Your task to perform on an android device: Clear the shopping cart on bestbuy.com. Search for macbook pro on bestbuy.com, select the first entry, add it to the cart, then select checkout. Image 0: 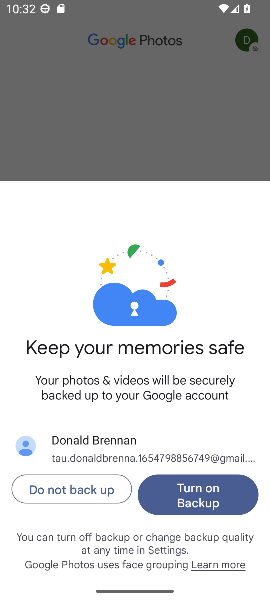
Step 0: press home button
Your task to perform on an android device: Clear the shopping cart on bestbuy.com. Search for macbook pro on bestbuy.com, select the first entry, add it to the cart, then select checkout. Image 1: 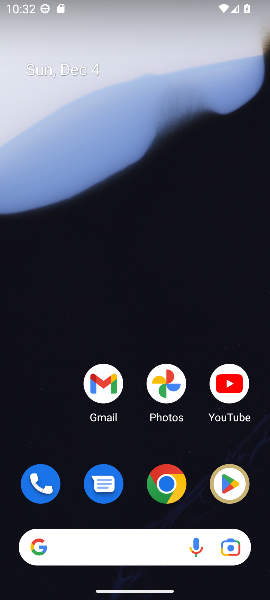
Step 1: click (170, 485)
Your task to perform on an android device: Clear the shopping cart on bestbuy.com. Search for macbook pro on bestbuy.com, select the first entry, add it to the cart, then select checkout. Image 2: 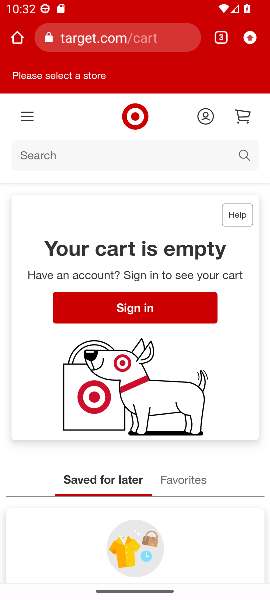
Step 2: click (96, 40)
Your task to perform on an android device: Clear the shopping cart on bestbuy.com. Search for macbook pro on bestbuy.com, select the first entry, add it to the cart, then select checkout. Image 3: 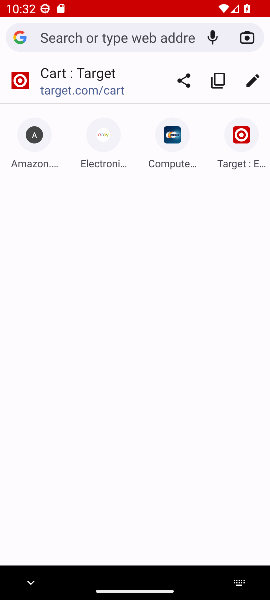
Step 3: type "bestbuy.com"
Your task to perform on an android device: Clear the shopping cart on bestbuy.com. Search for macbook pro on bestbuy.com, select the first entry, add it to the cart, then select checkout. Image 4: 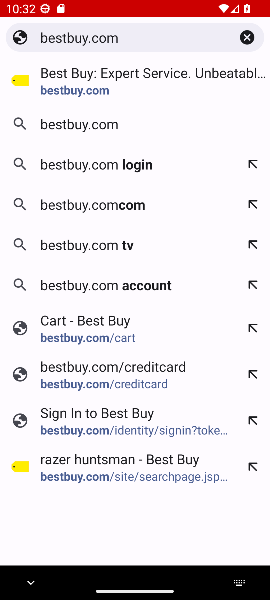
Step 4: click (82, 85)
Your task to perform on an android device: Clear the shopping cart on bestbuy.com. Search for macbook pro on bestbuy.com, select the first entry, add it to the cart, then select checkout. Image 5: 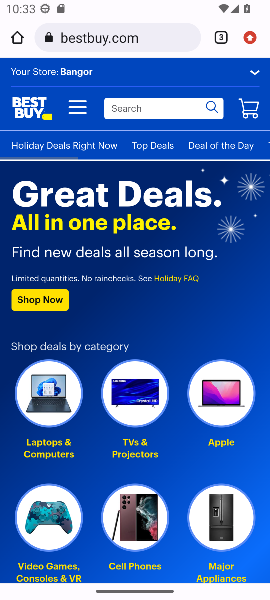
Step 5: click (249, 104)
Your task to perform on an android device: Clear the shopping cart on bestbuy.com. Search for macbook pro on bestbuy.com, select the first entry, add it to the cart, then select checkout. Image 6: 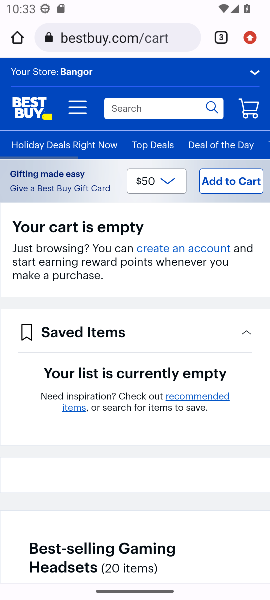
Step 6: click (143, 109)
Your task to perform on an android device: Clear the shopping cart on bestbuy.com. Search for macbook pro on bestbuy.com, select the first entry, add it to the cart, then select checkout. Image 7: 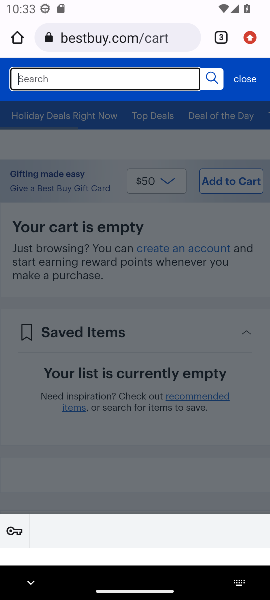
Step 7: type "macbook pro"
Your task to perform on an android device: Clear the shopping cart on bestbuy.com. Search for macbook pro on bestbuy.com, select the first entry, add it to the cart, then select checkout. Image 8: 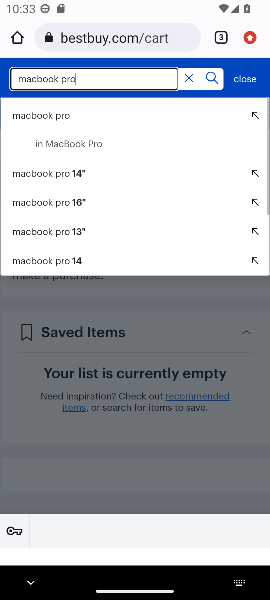
Step 8: click (46, 114)
Your task to perform on an android device: Clear the shopping cart on bestbuy.com. Search for macbook pro on bestbuy.com, select the first entry, add it to the cart, then select checkout. Image 9: 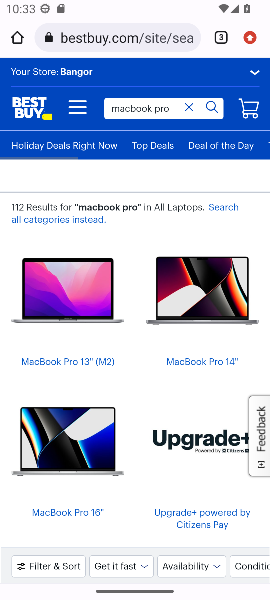
Step 9: drag from (135, 354) to (135, 166)
Your task to perform on an android device: Clear the shopping cart on bestbuy.com. Search for macbook pro on bestbuy.com, select the first entry, add it to the cart, then select checkout. Image 10: 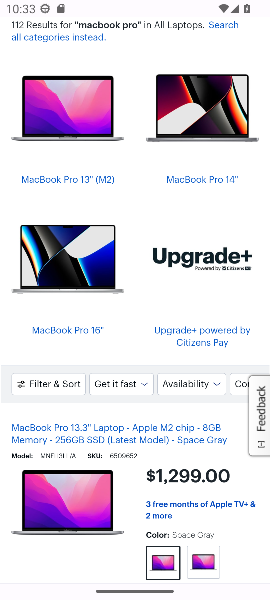
Step 10: drag from (133, 313) to (142, 124)
Your task to perform on an android device: Clear the shopping cart on bestbuy.com. Search for macbook pro on bestbuy.com, select the first entry, add it to the cart, then select checkout. Image 11: 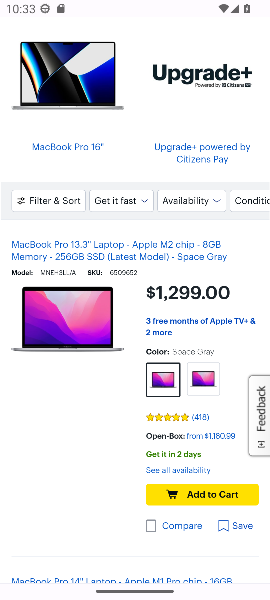
Step 11: click (188, 494)
Your task to perform on an android device: Clear the shopping cart on bestbuy.com. Search for macbook pro on bestbuy.com, select the first entry, add it to the cart, then select checkout. Image 12: 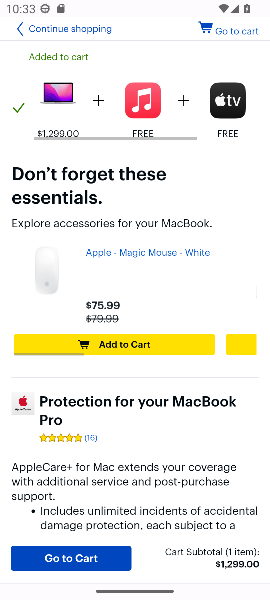
Step 12: click (229, 34)
Your task to perform on an android device: Clear the shopping cart on bestbuy.com. Search for macbook pro on bestbuy.com, select the first entry, add it to the cart, then select checkout. Image 13: 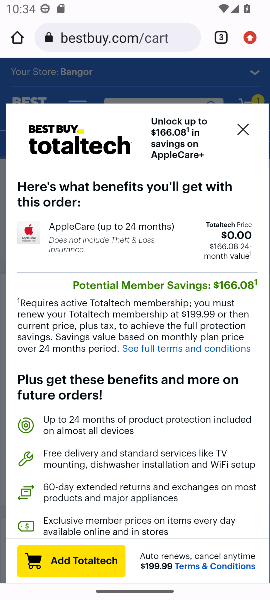
Step 13: click (241, 136)
Your task to perform on an android device: Clear the shopping cart on bestbuy.com. Search for macbook pro on bestbuy.com, select the first entry, add it to the cart, then select checkout. Image 14: 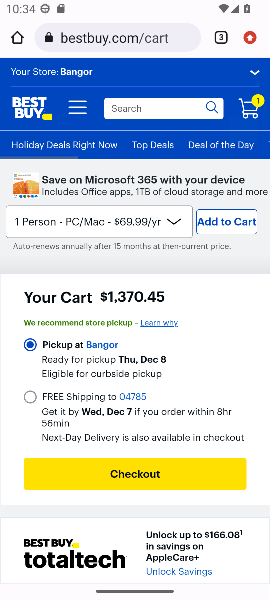
Step 14: click (125, 463)
Your task to perform on an android device: Clear the shopping cart on bestbuy.com. Search for macbook pro on bestbuy.com, select the first entry, add it to the cart, then select checkout. Image 15: 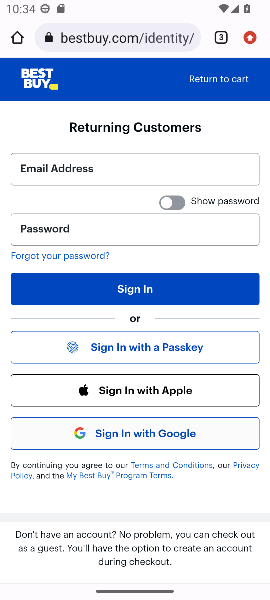
Step 15: task complete